Your task to perform on an android device: open app "DoorDash - Dasher" (install if not already installed) Image 0: 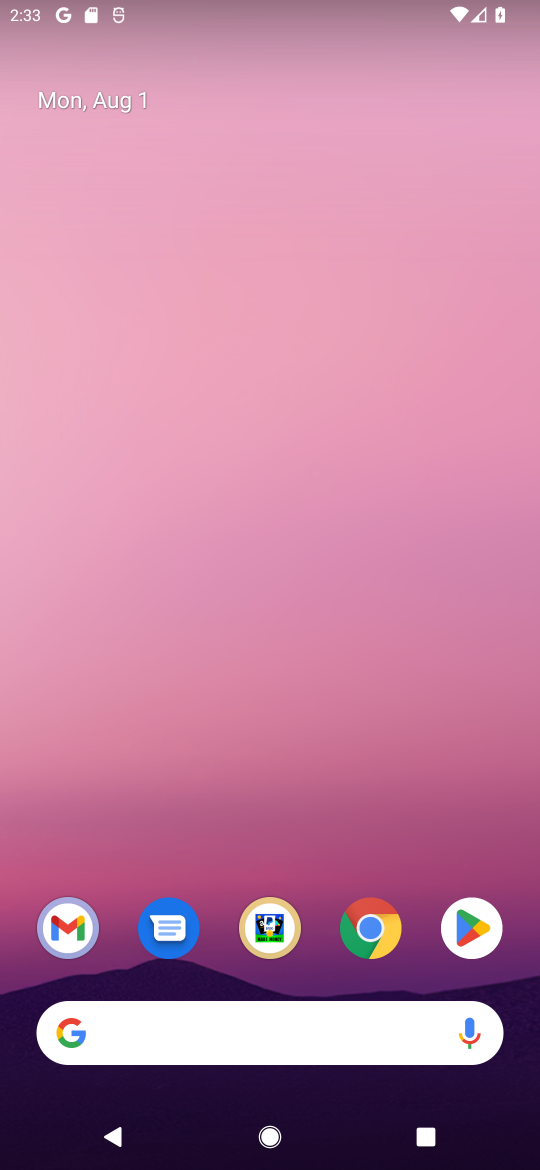
Step 0: click (471, 935)
Your task to perform on an android device: open app "DoorDash - Dasher" (install if not already installed) Image 1: 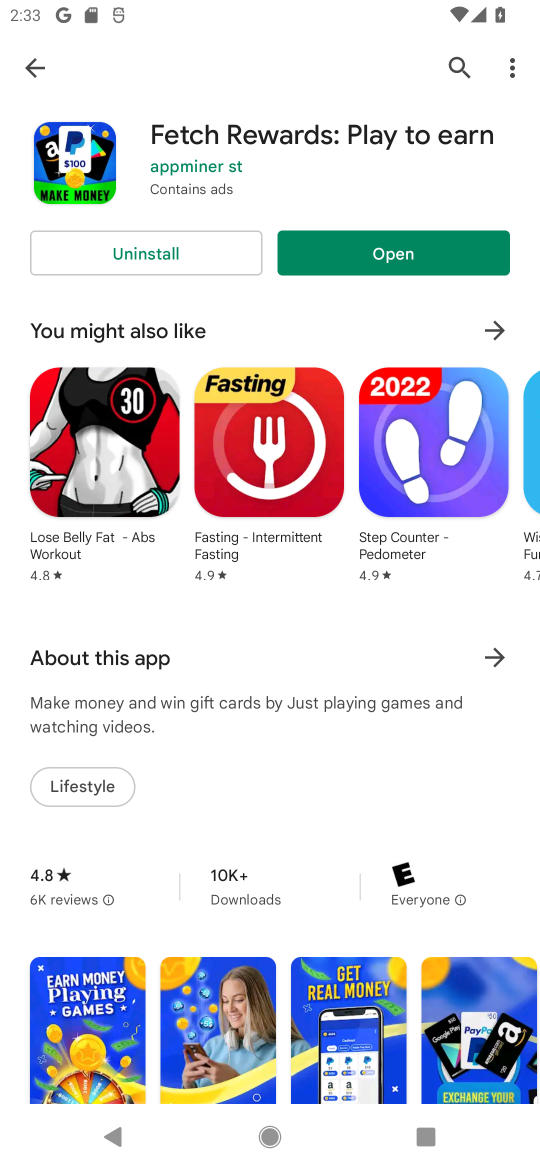
Step 1: click (456, 75)
Your task to perform on an android device: open app "DoorDash - Dasher" (install if not already installed) Image 2: 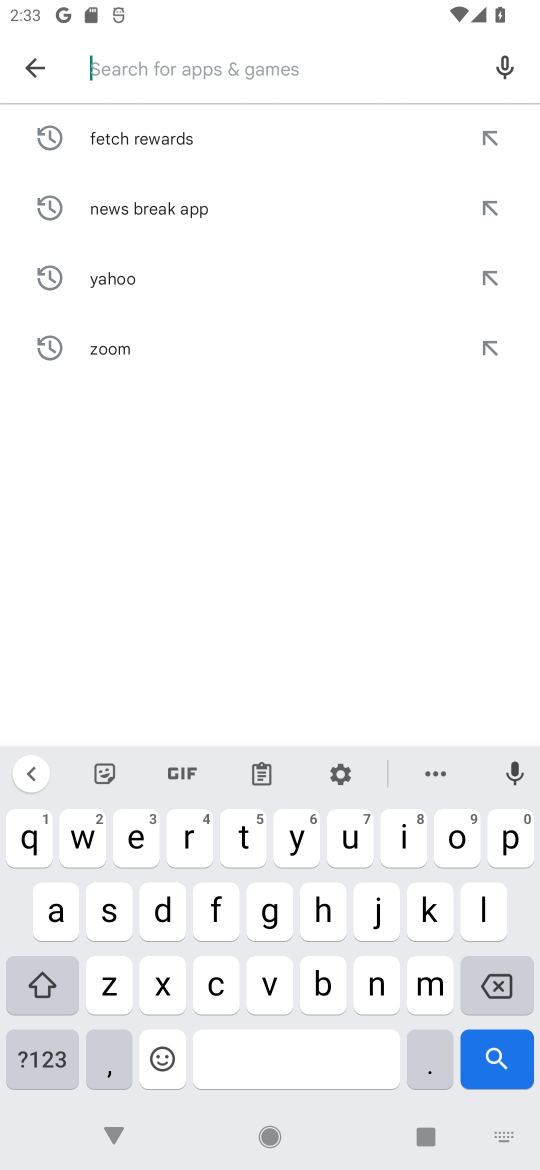
Step 2: click (151, 923)
Your task to perform on an android device: open app "DoorDash - Dasher" (install if not already installed) Image 3: 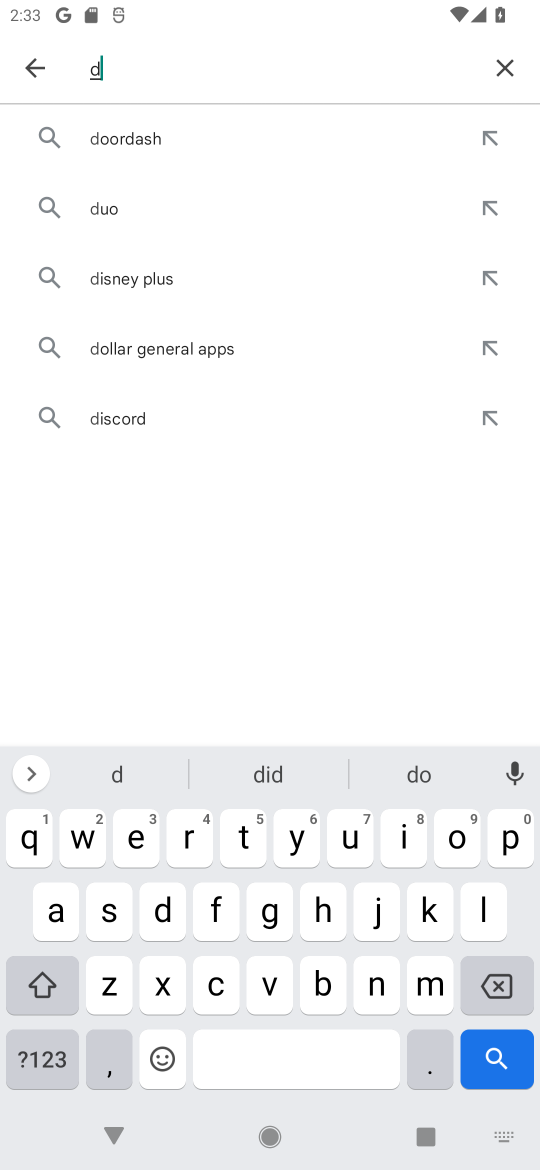
Step 3: click (448, 840)
Your task to perform on an android device: open app "DoorDash - Dasher" (install if not already installed) Image 4: 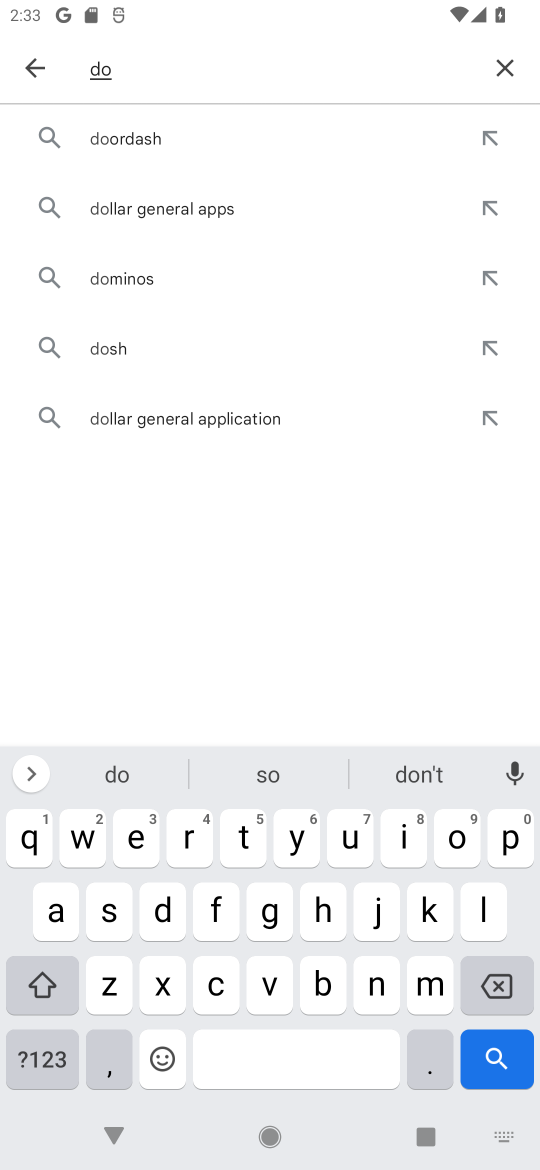
Step 4: click (123, 137)
Your task to perform on an android device: open app "DoorDash - Dasher" (install if not already installed) Image 5: 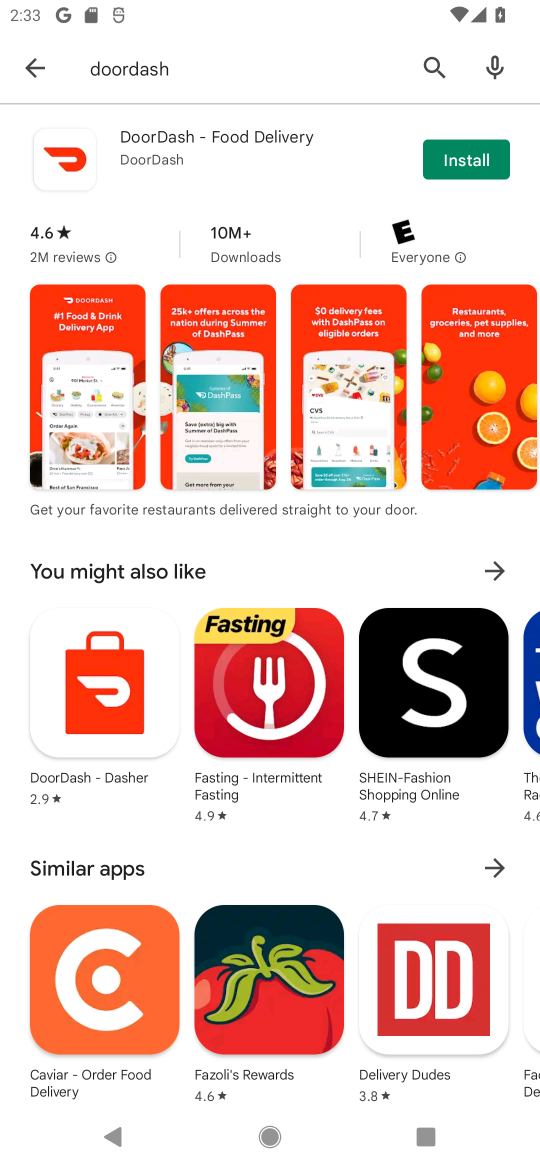
Step 5: click (445, 163)
Your task to perform on an android device: open app "DoorDash - Dasher" (install if not already installed) Image 6: 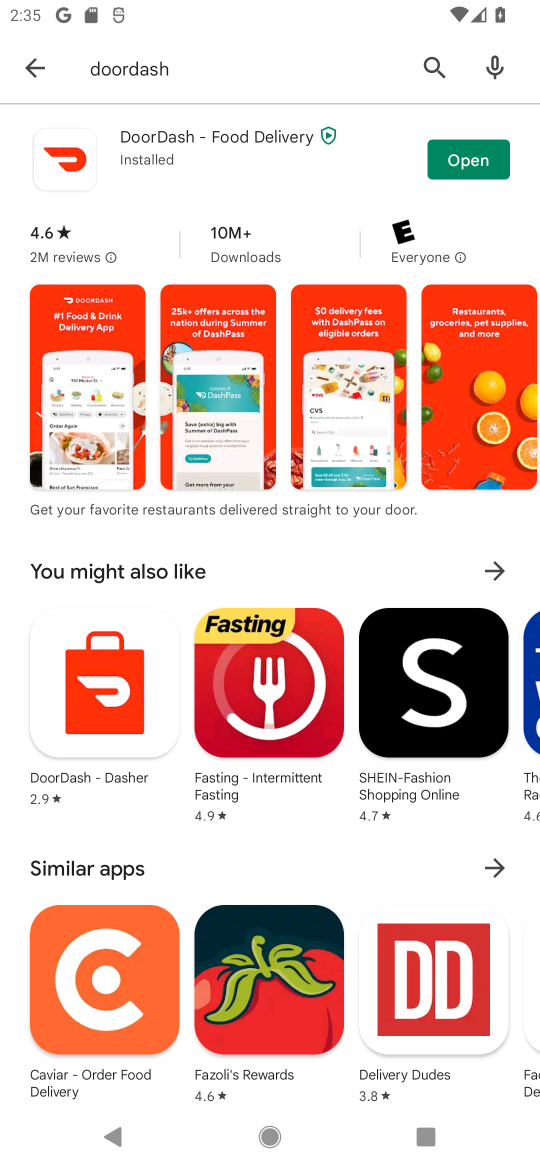
Step 6: click (433, 165)
Your task to perform on an android device: open app "DoorDash - Dasher" (install if not already installed) Image 7: 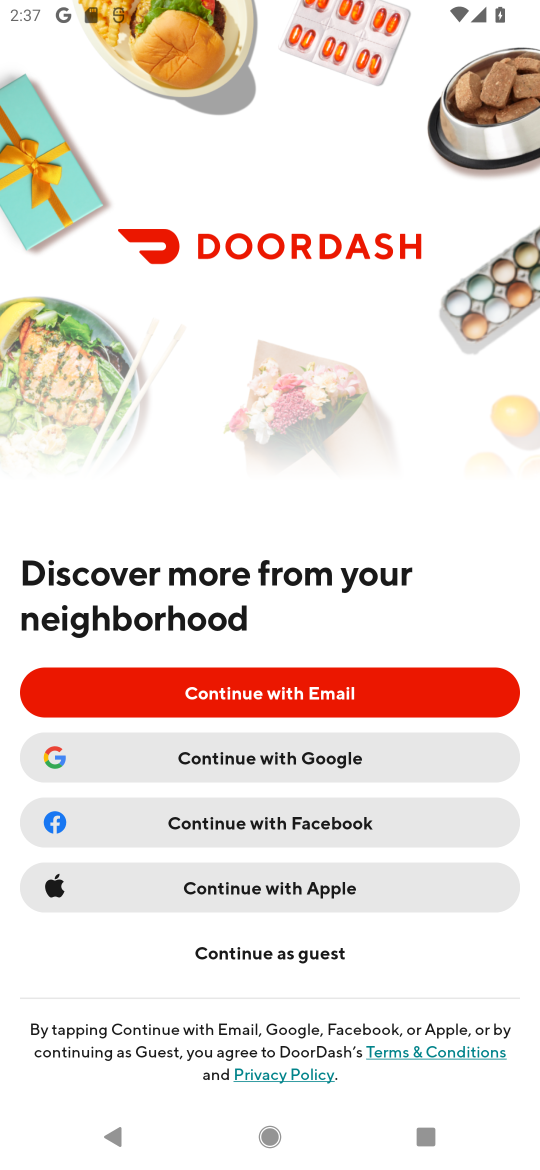
Step 7: task complete